Your task to perform on an android device: Toggle the flashlight Image 0: 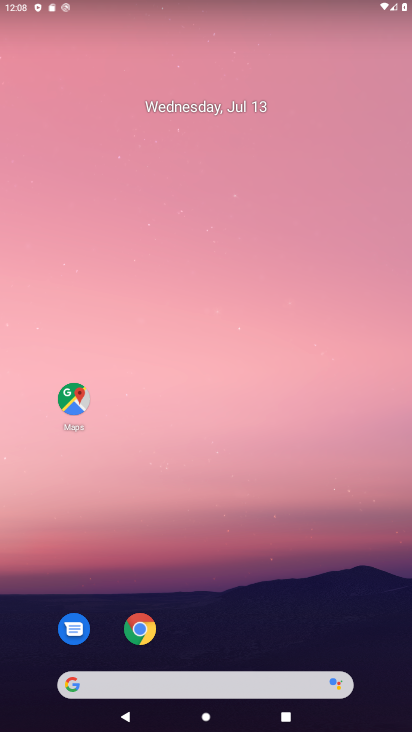
Step 0: drag from (221, 630) to (188, 152)
Your task to perform on an android device: Toggle the flashlight Image 1: 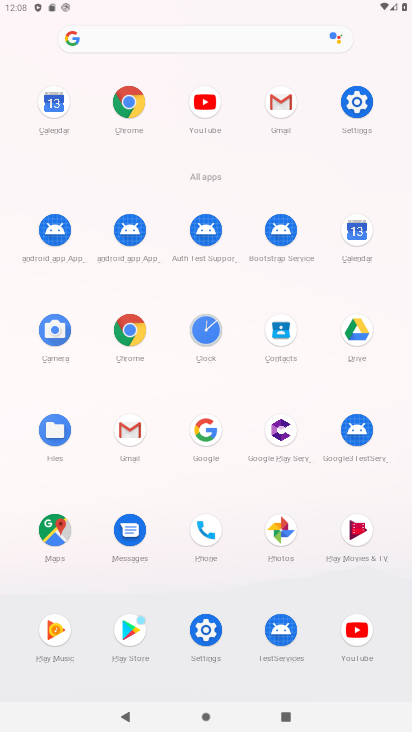
Step 1: task complete